Your task to perform on an android device: install app "Pinterest" Image 0: 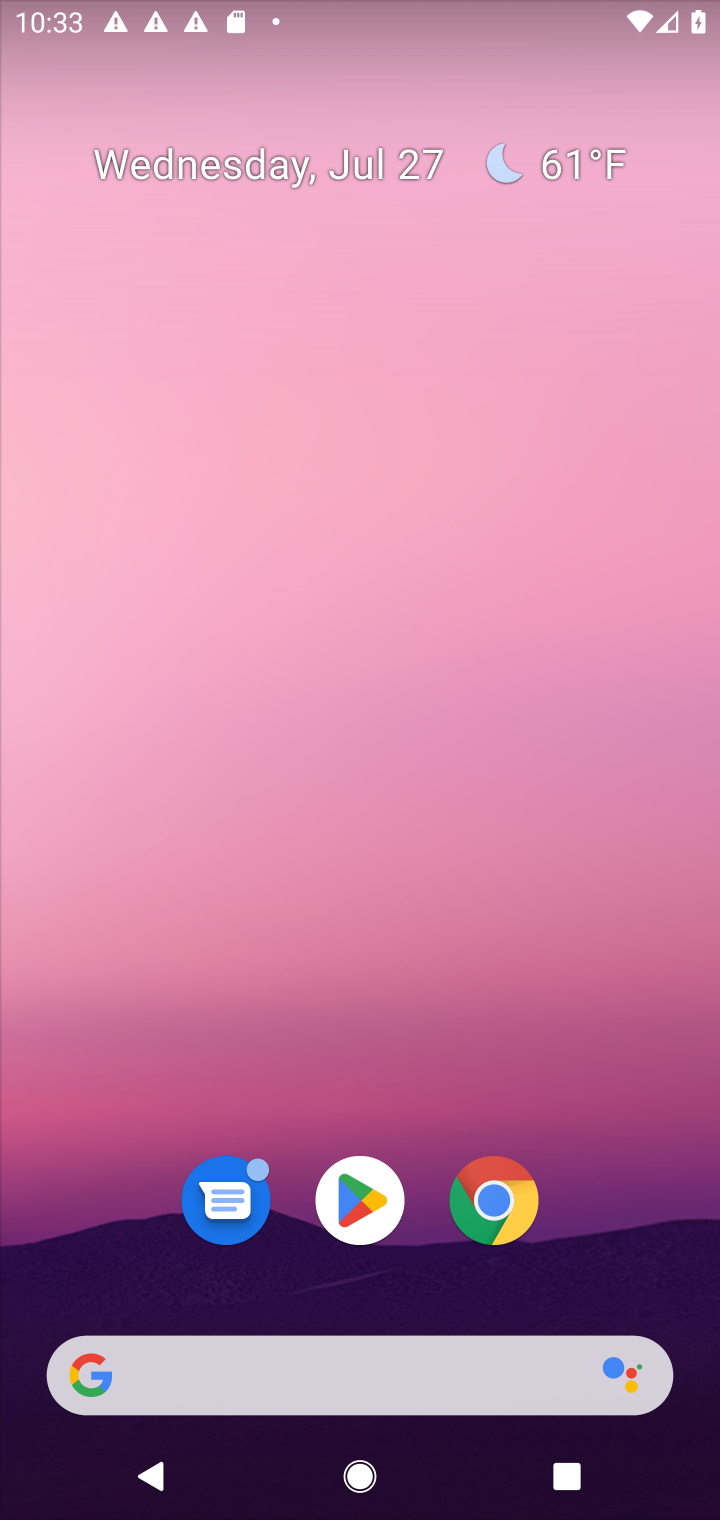
Step 0: click (353, 1198)
Your task to perform on an android device: install app "Pinterest" Image 1: 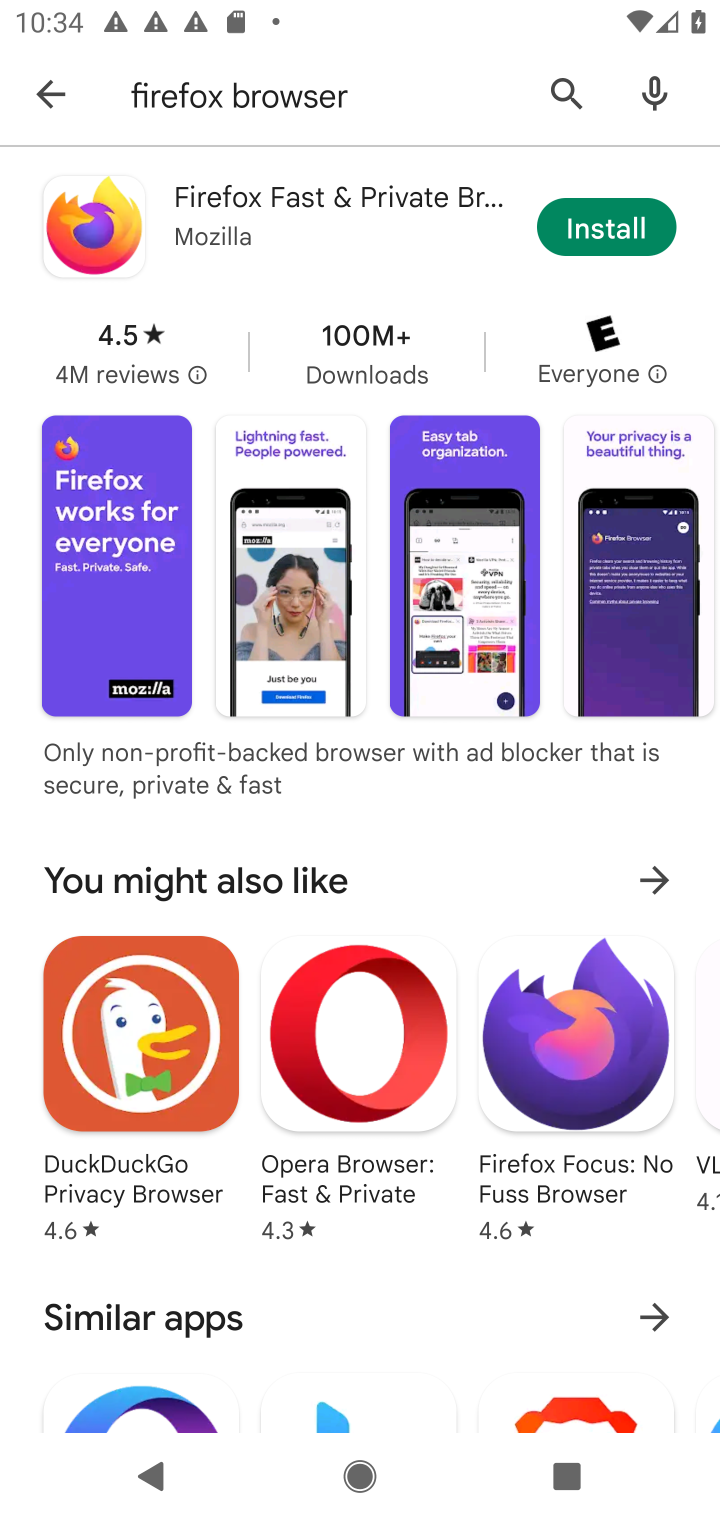
Step 1: click (561, 77)
Your task to perform on an android device: install app "Pinterest" Image 2: 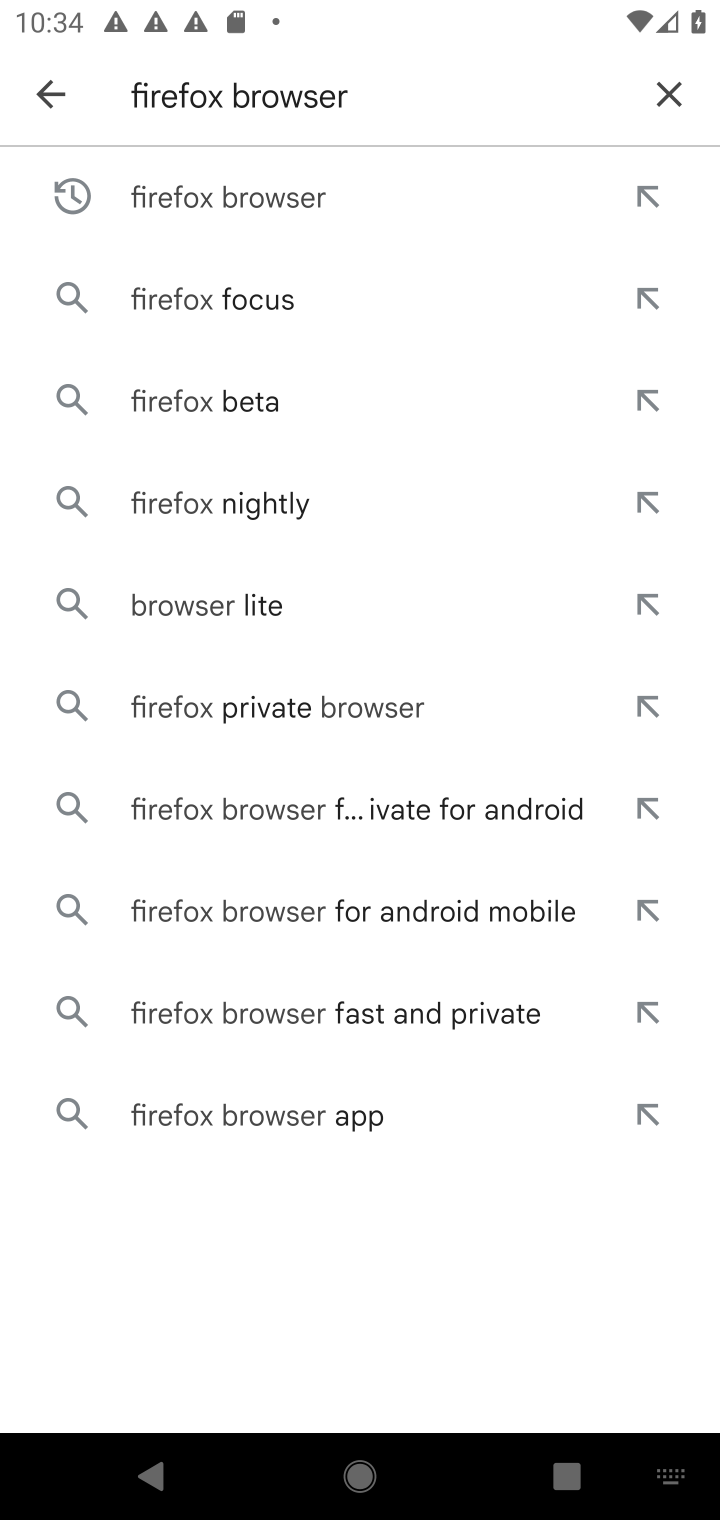
Step 2: click (652, 81)
Your task to perform on an android device: install app "Pinterest" Image 3: 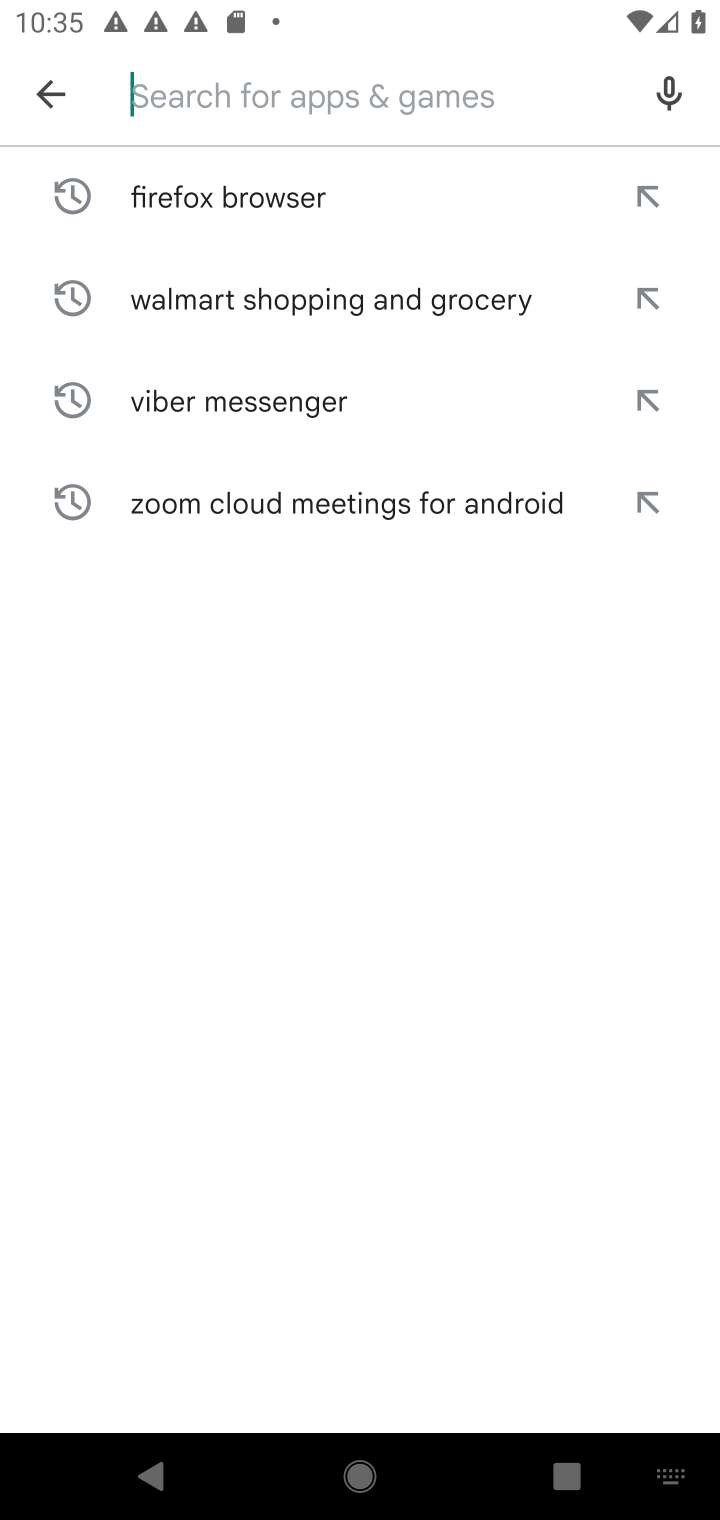
Step 3: type "pinterest"
Your task to perform on an android device: install app "Pinterest" Image 4: 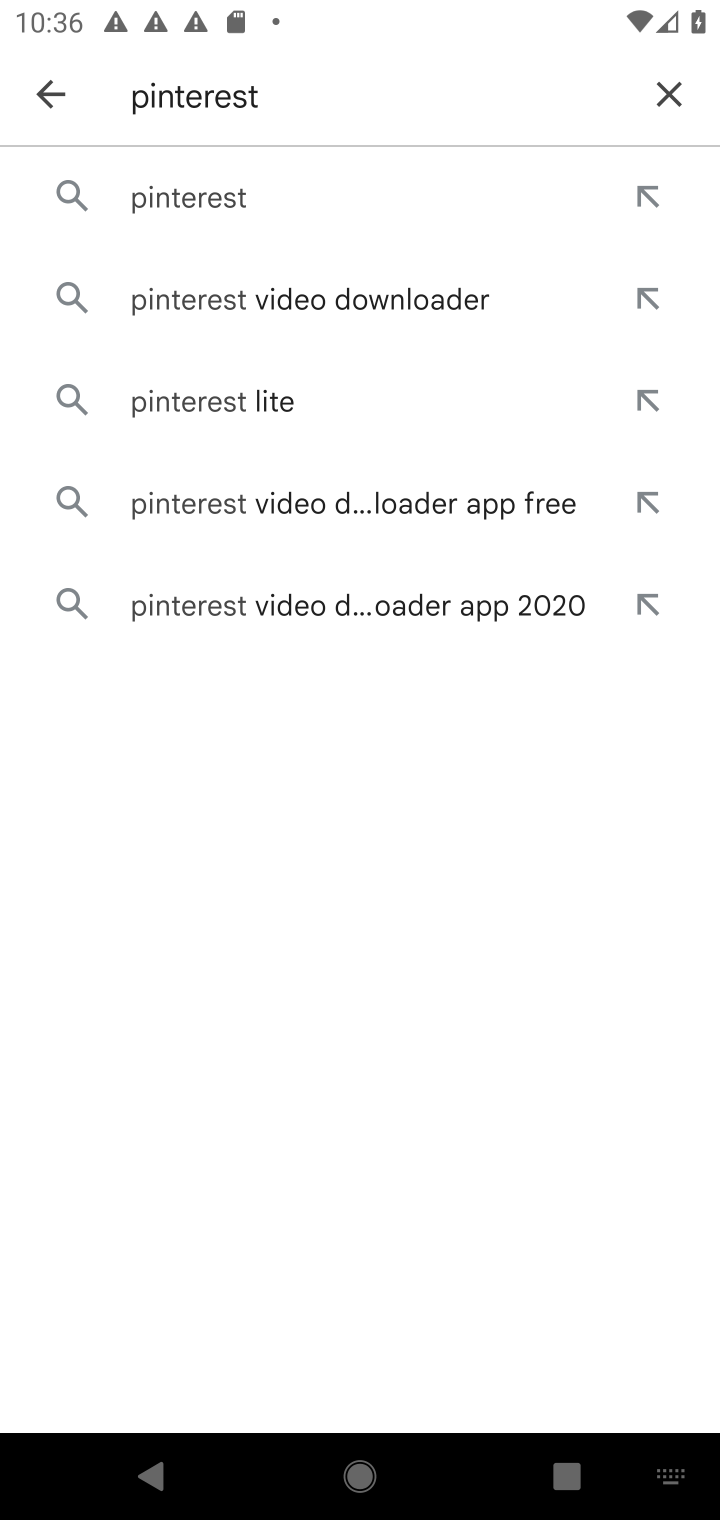
Step 4: click (166, 193)
Your task to perform on an android device: install app "Pinterest" Image 5: 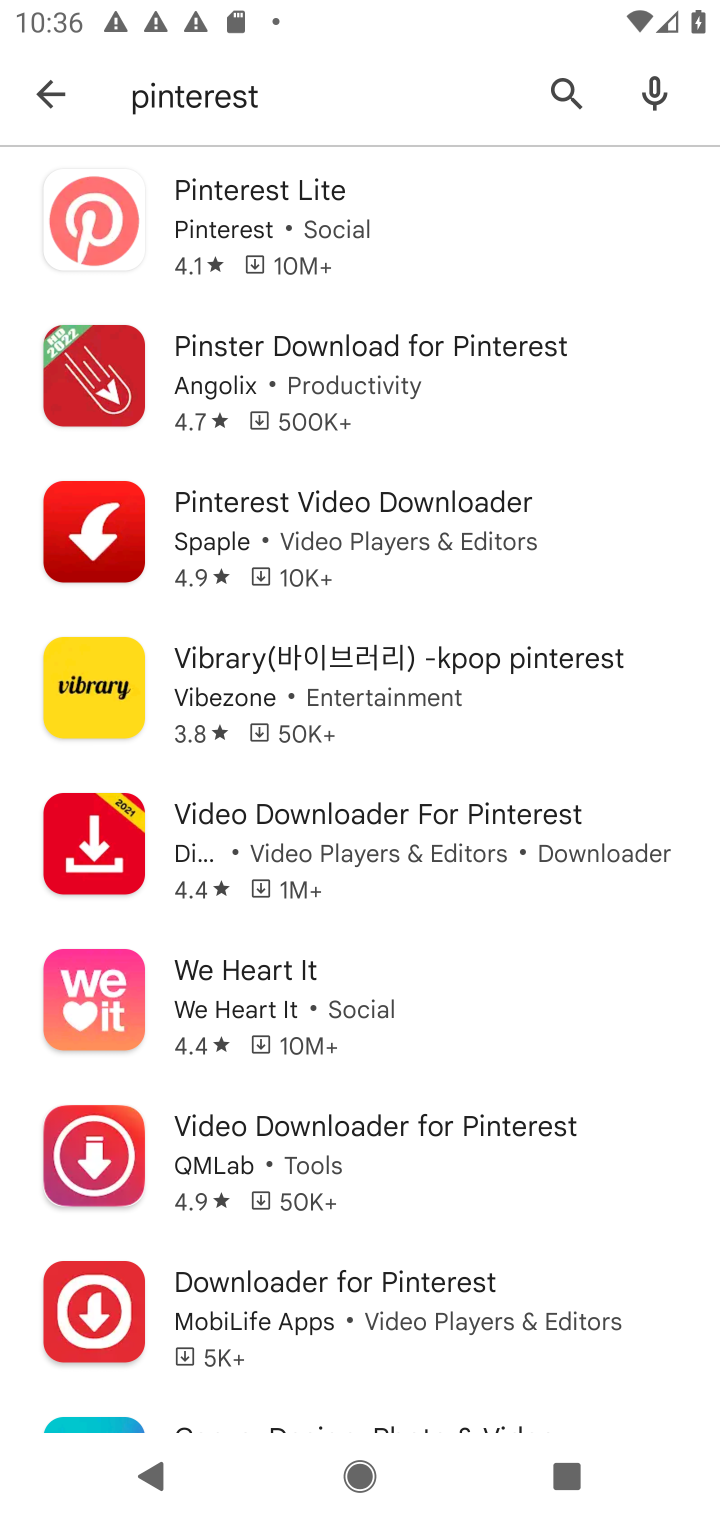
Step 5: click (237, 199)
Your task to perform on an android device: install app "Pinterest" Image 6: 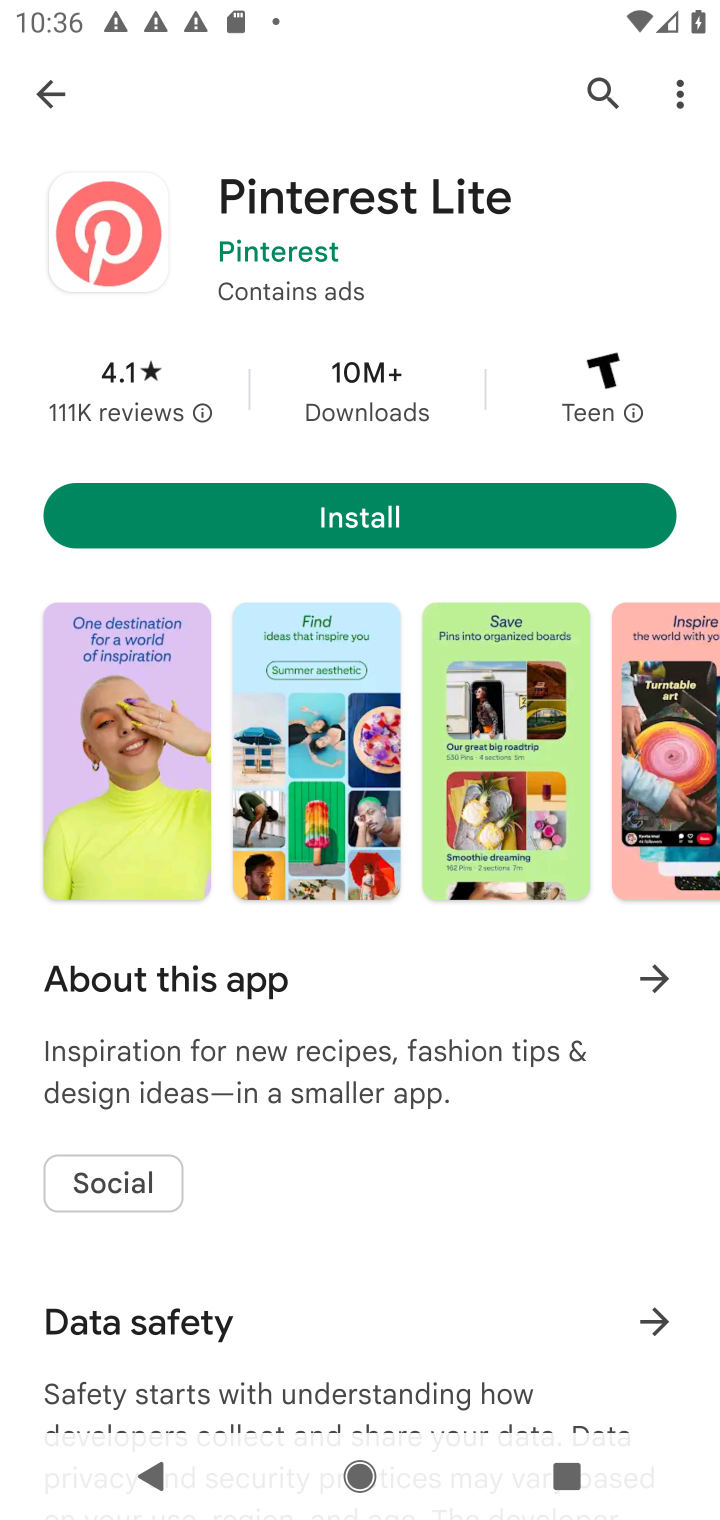
Step 6: click (309, 496)
Your task to perform on an android device: install app "Pinterest" Image 7: 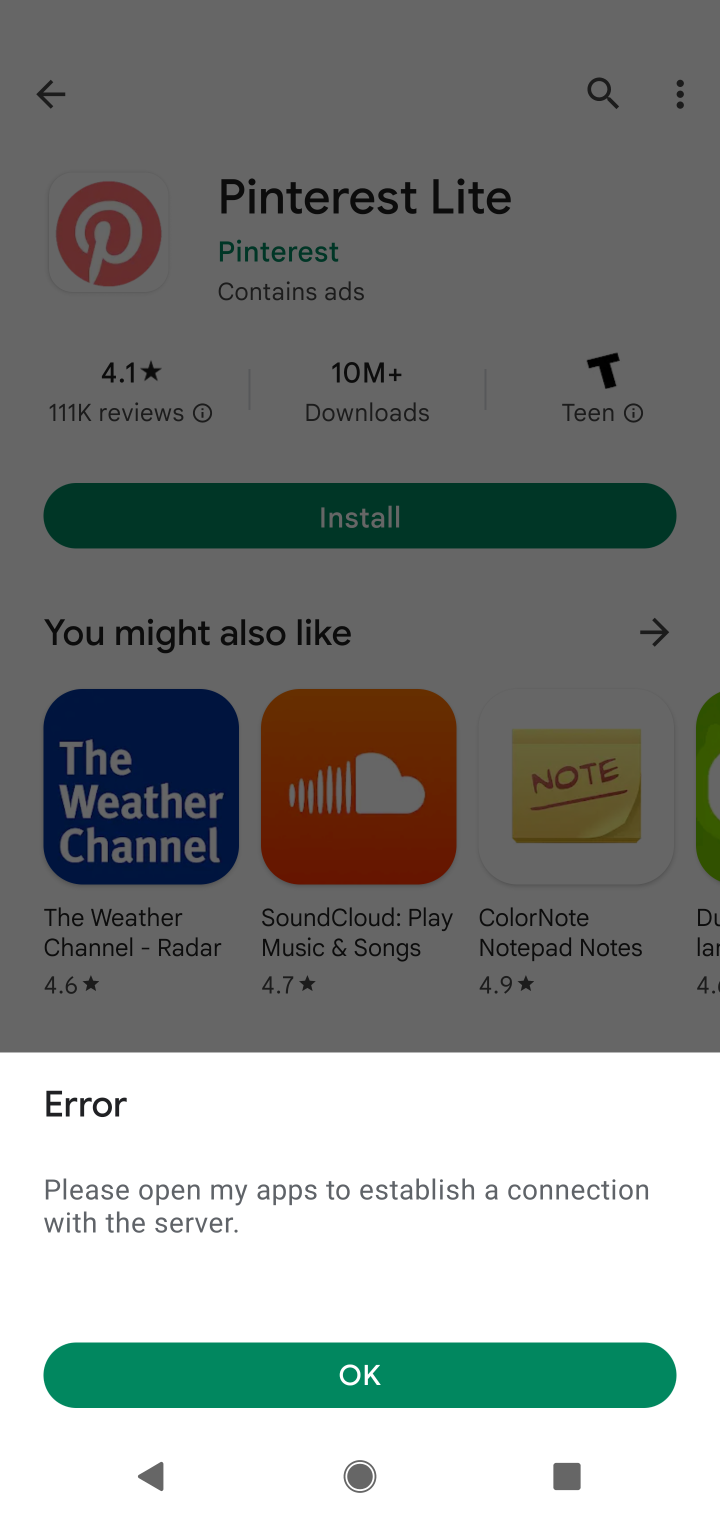
Step 7: click (396, 1372)
Your task to perform on an android device: install app "Pinterest" Image 8: 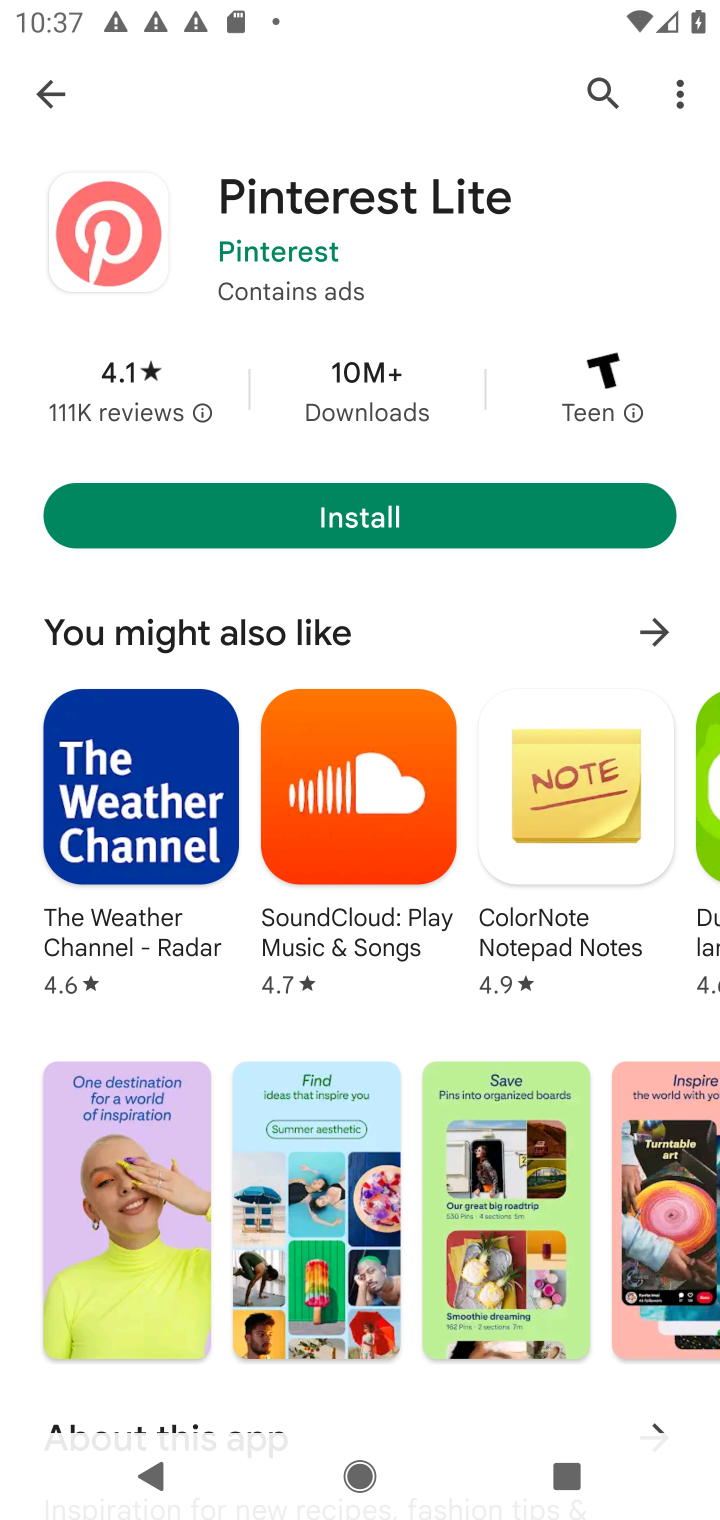
Step 8: task complete